Your task to perform on an android device: open app "Google Sheets" (install if not already installed) Image 0: 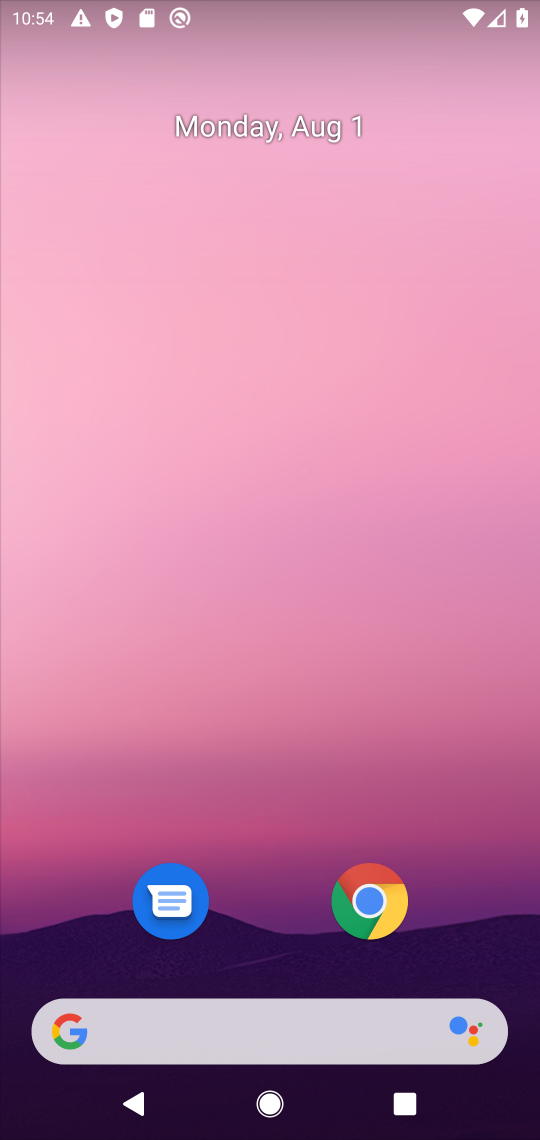
Step 0: drag from (245, 1004) to (338, 57)
Your task to perform on an android device: open app "Google Sheets" (install if not already installed) Image 1: 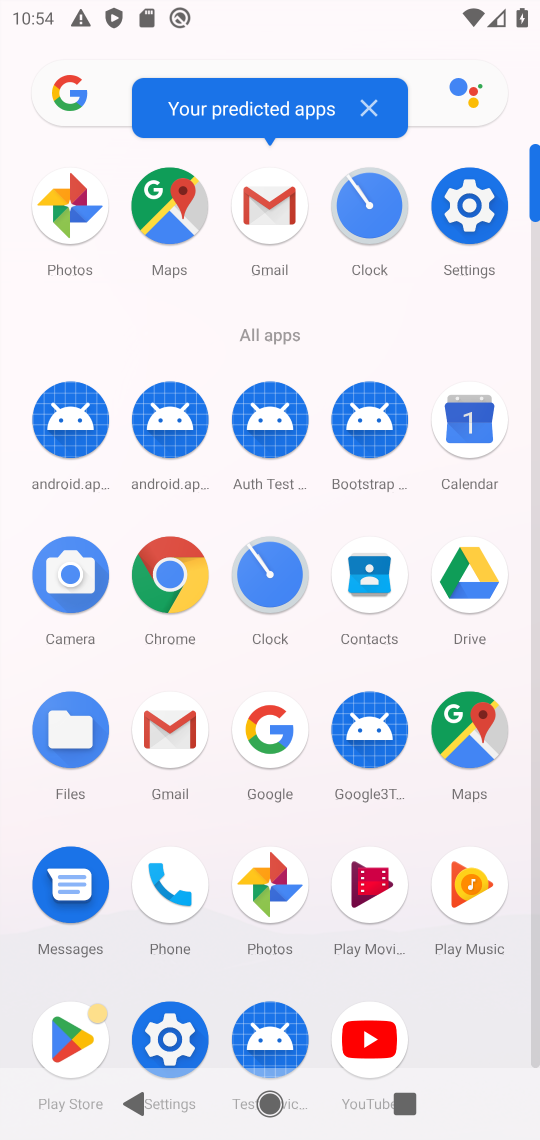
Step 1: click (63, 1046)
Your task to perform on an android device: open app "Google Sheets" (install if not already installed) Image 2: 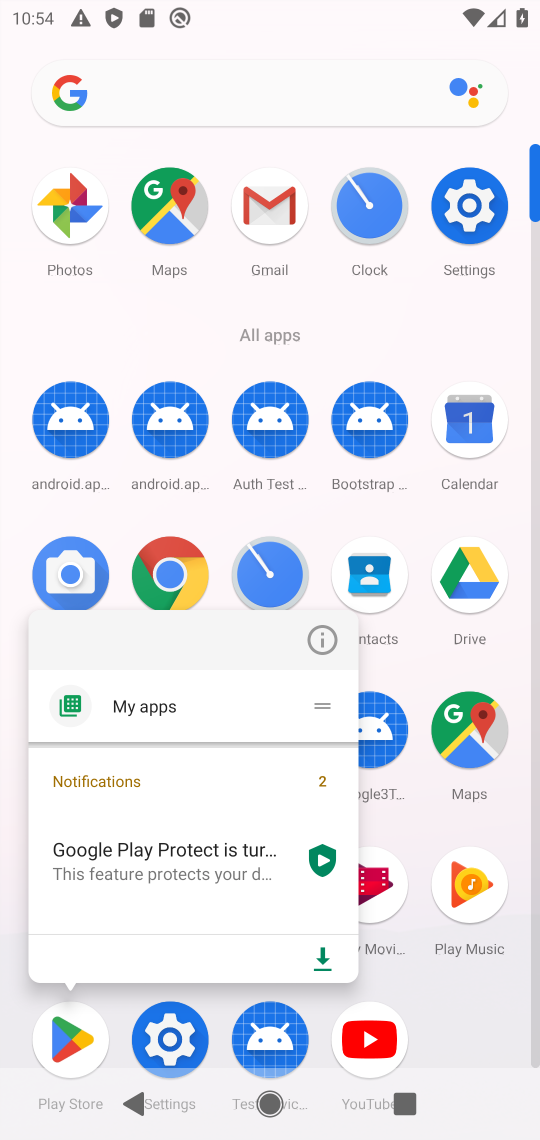
Step 2: click (63, 1046)
Your task to perform on an android device: open app "Google Sheets" (install if not already installed) Image 3: 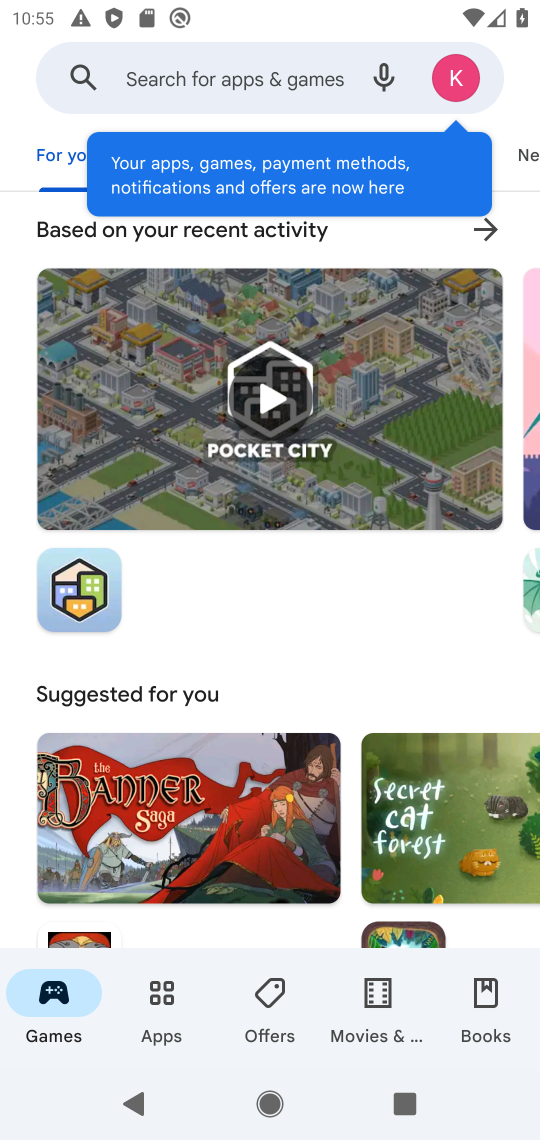
Step 3: click (237, 80)
Your task to perform on an android device: open app "Google Sheets" (install if not already installed) Image 4: 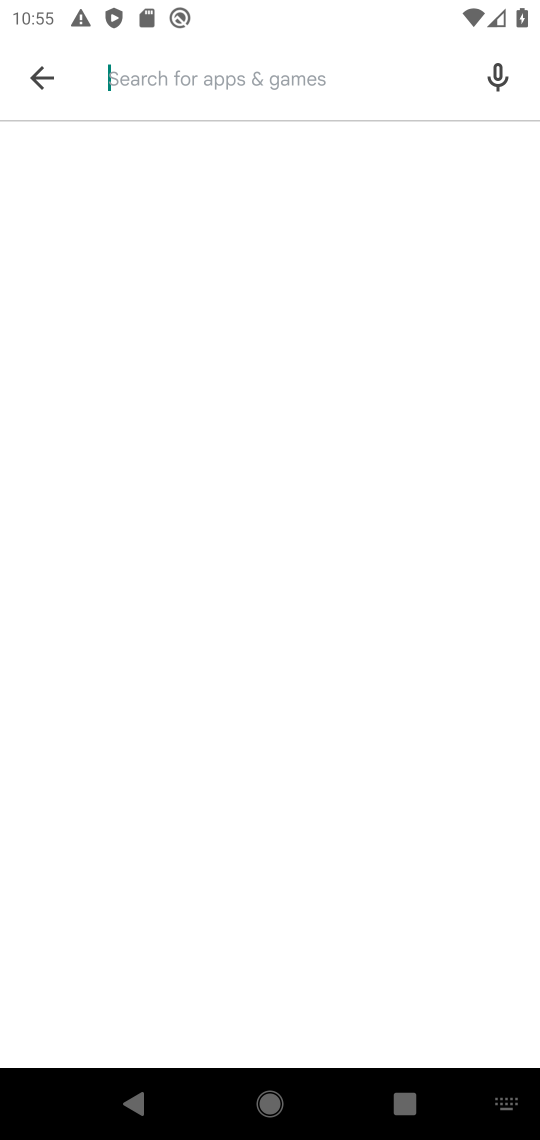
Step 4: type "Google Sheets"
Your task to perform on an android device: open app "Google Sheets" (install if not already installed) Image 5: 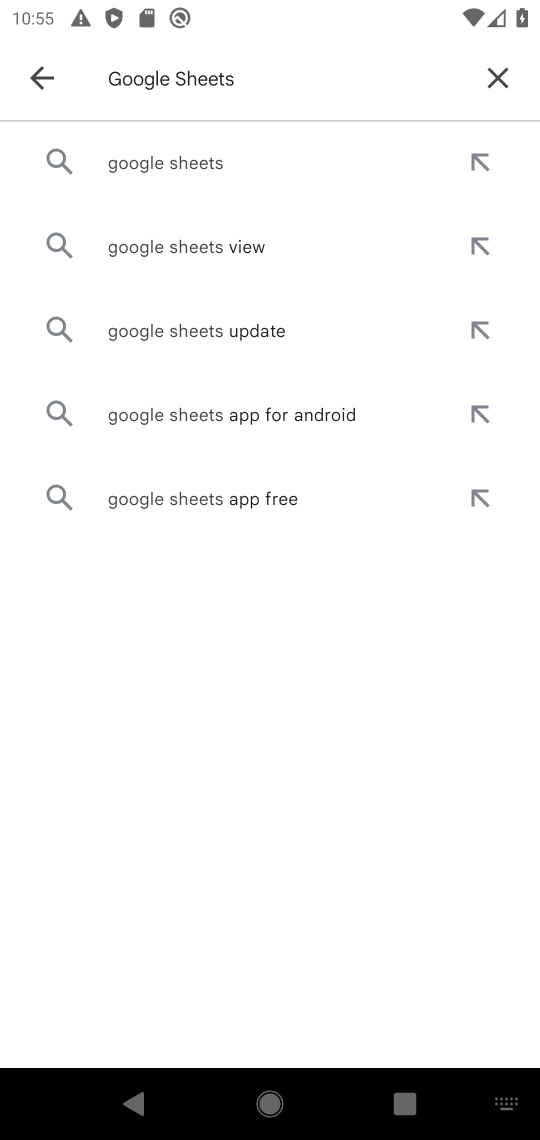
Step 5: click (216, 165)
Your task to perform on an android device: open app "Google Sheets" (install if not already installed) Image 6: 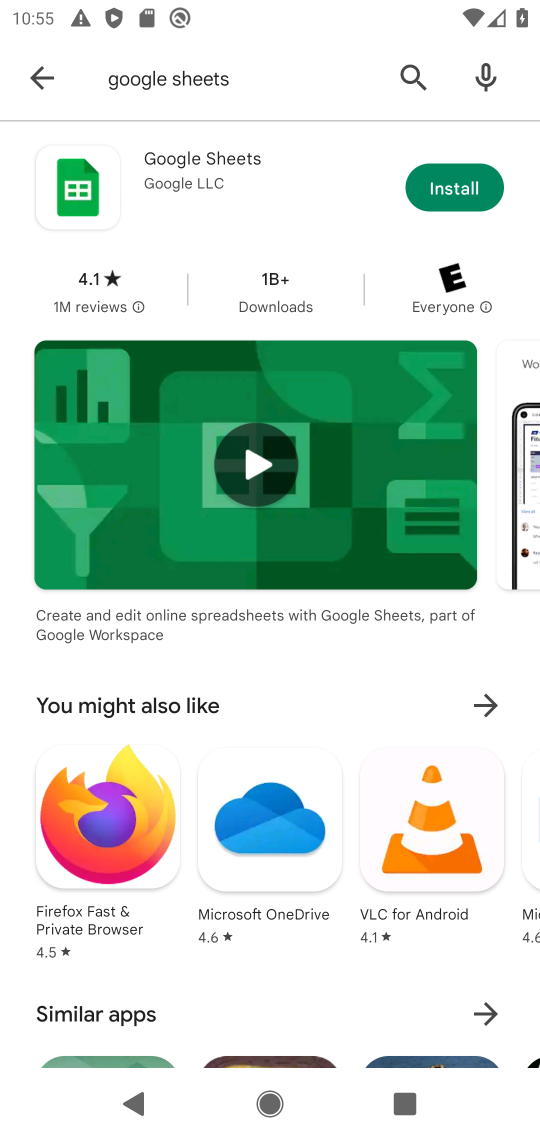
Step 6: click (469, 189)
Your task to perform on an android device: open app "Google Sheets" (install if not already installed) Image 7: 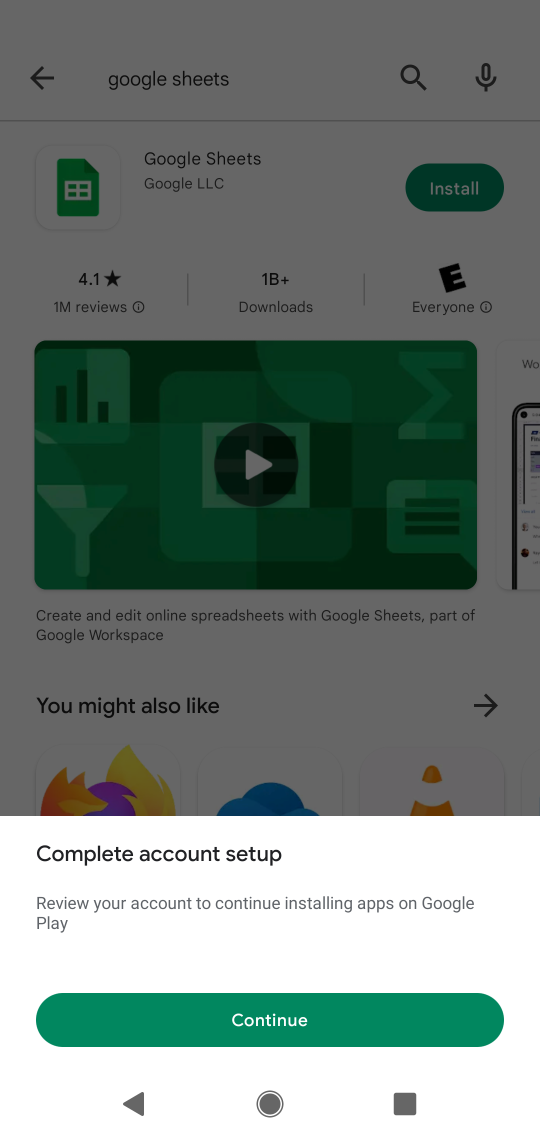
Step 7: click (243, 1023)
Your task to perform on an android device: open app "Google Sheets" (install if not already installed) Image 8: 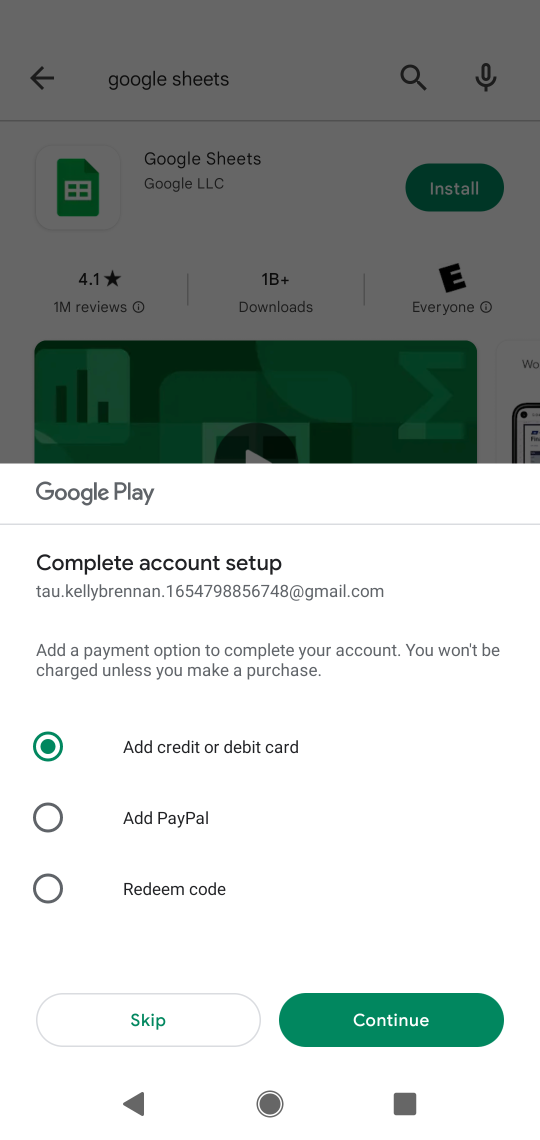
Step 8: click (173, 1015)
Your task to perform on an android device: open app "Google Sheets" (install if not already installed) Image 9: 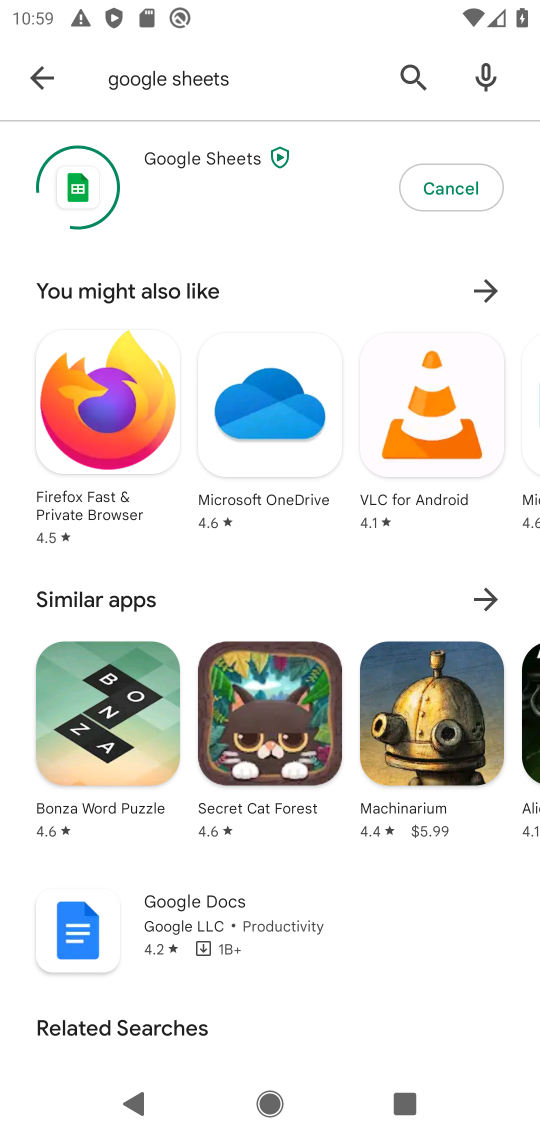
Step 9: task complete